Your task to perform on an android device: turn on the 24-hour format for clock Image 0: 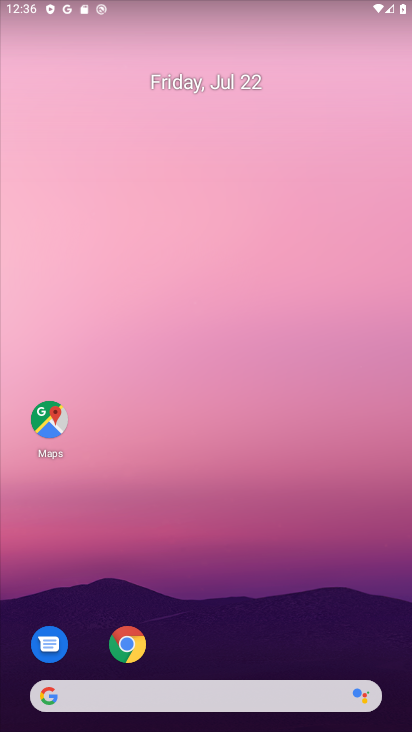
Step 0: drag from (261, 690) to (201, 3)
Your task to perform on an android device: turn on the 24-hour format for clock Image 1: 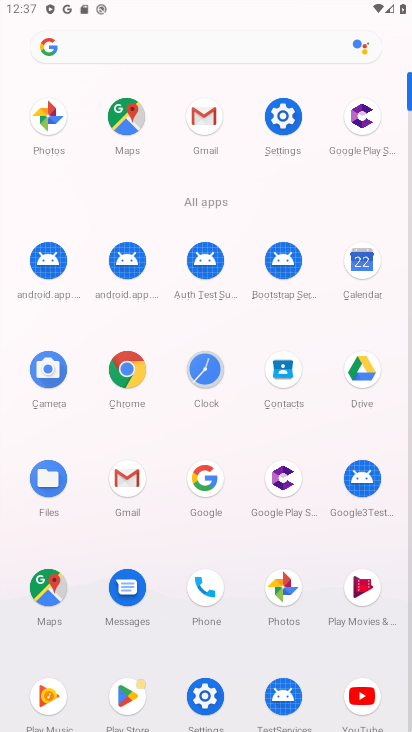
Step 1: click (192, 376)
Your task to perform on an android device: turn on the 24-hour format for clock Image 2: 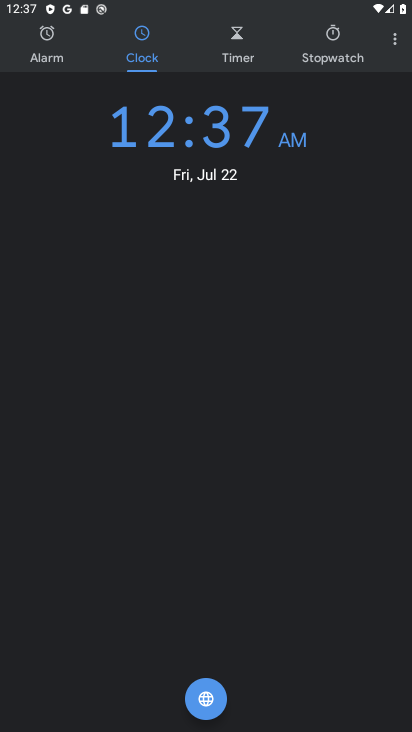
Step 2: click (395, 39)
Your task to perform on an android device: turn on the 24-hour format for clock Image 3: 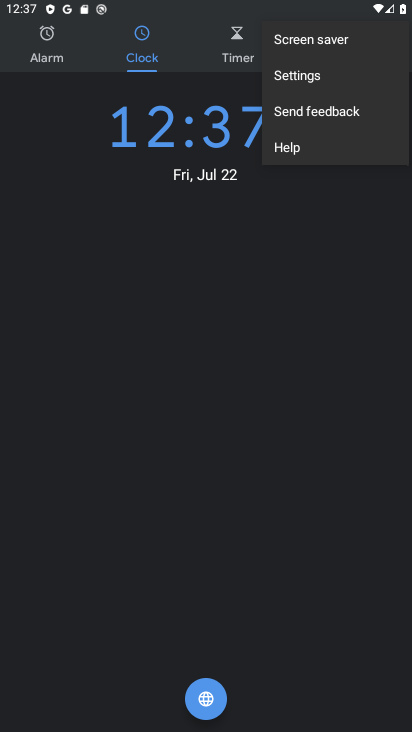
Step 3: click (344, 79)
Your task to perform on an android device: turn on the 24-hour format for clock Image 4: 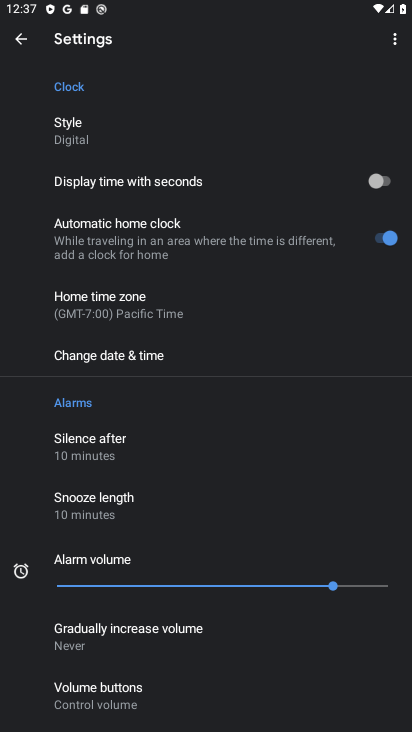
Step 4: click (260, 355)
Your task to perform on an android device: turn on the 24-hour format for clock Image 5: 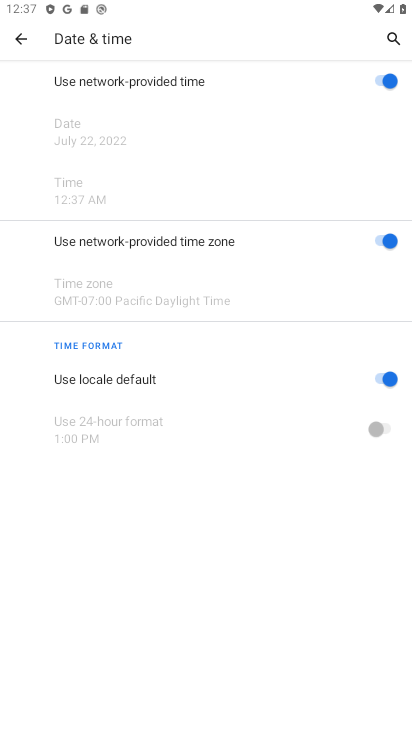
Step 5: click (384, 374)
Your task to perform on an android device: turn on the 24-hour format for clock Image 6: 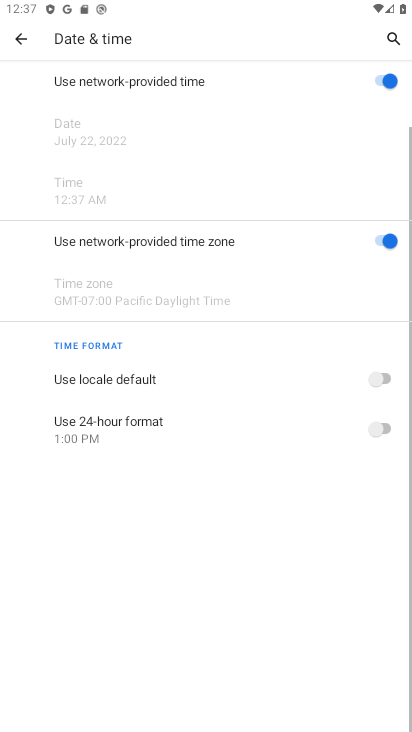
Step 6: click (385, 430)
Your task to perform on an android device: turn on the 24-hour format for clock Image 7: 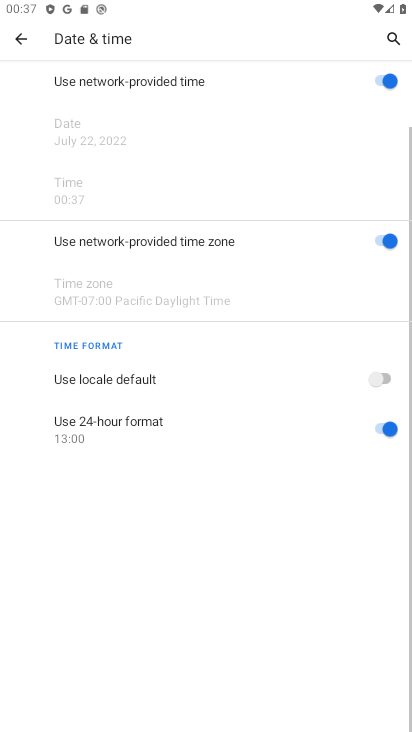
Step 7: task complete